Your task to perform on an android device: Empty the shopping cart on target. Search for apple airpods on target, select the first entry, add it to the cart, then select checkout. Image 0: 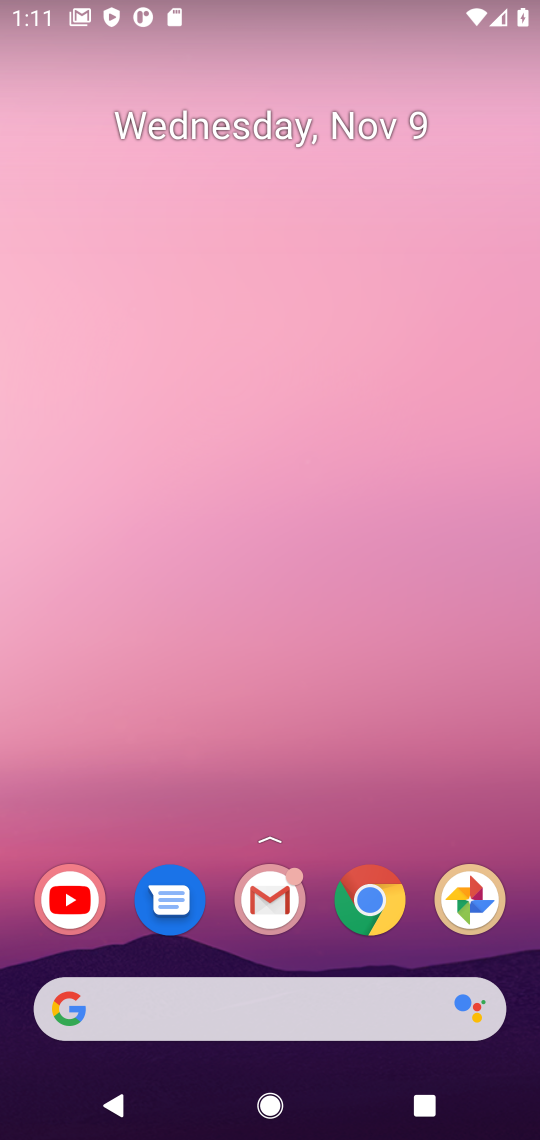
Step 0: click (353, 920)
Your task to perform on an android device: Empty the shopping cart on target. Search for apple airpods on target, select the first entry, add it to the cart, then select checkout. Image 1: 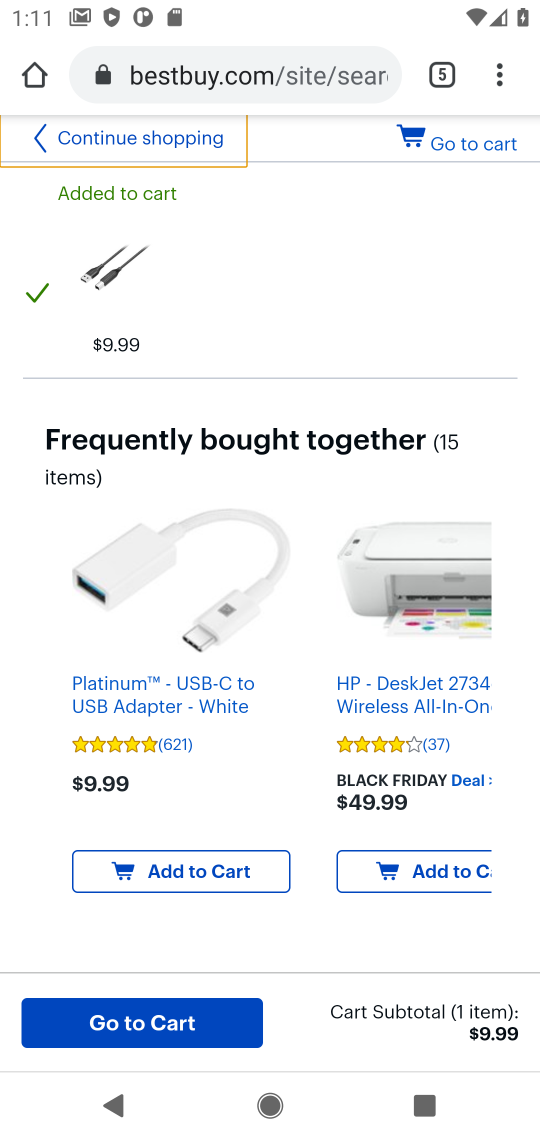
Step 1: click (444, 57)
Your task to perform on an android device: Empty the shopping cart on target. Search for apple airpods on target, select the first entry, add it to the cart, then select checkout. Image 2: 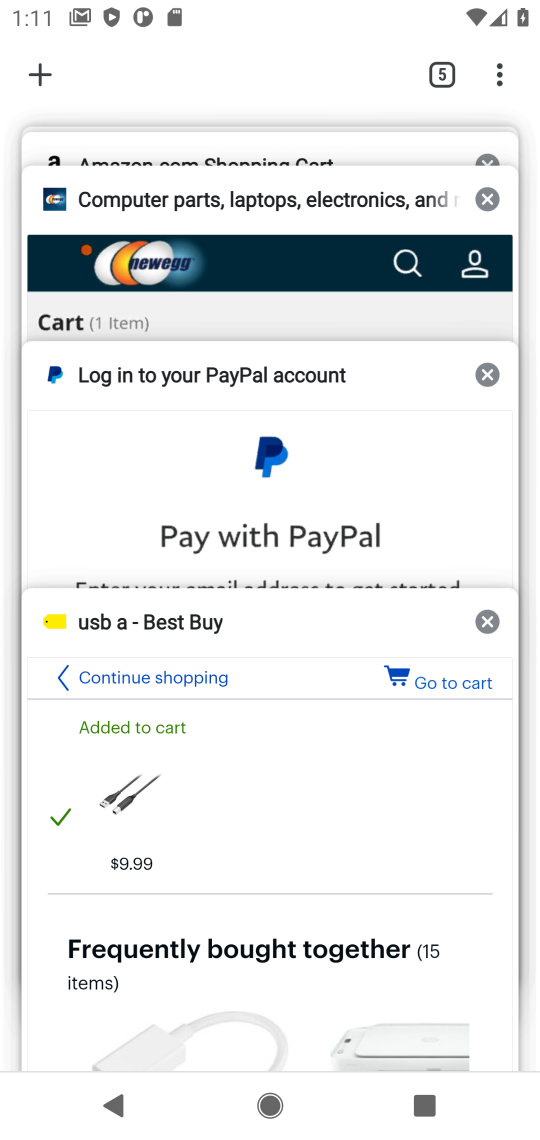
Step 2: click (44, 88)
Your task to perform on an android device: Empty the shopping cart on target. Search for apple airpods on target, select the first entry, add it to the cart, then select checkout. Image 3: 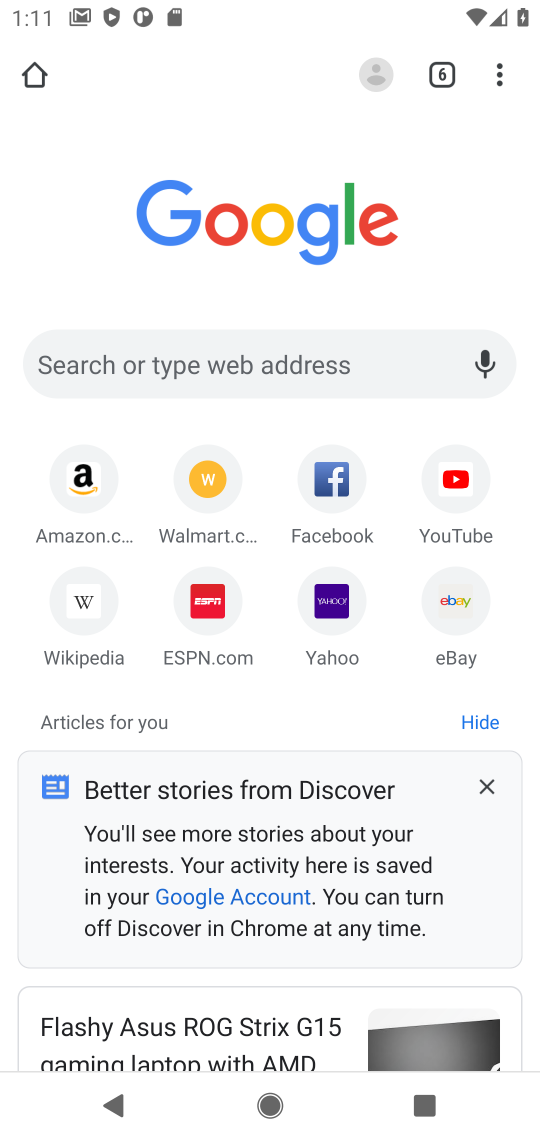
Step 3: click (271, 374)
Your task to perform on an android device: Empty the shopping cart on target. Search for apple airpods on target, select the first entry, add it to the cart, then select checkout. Image 4: 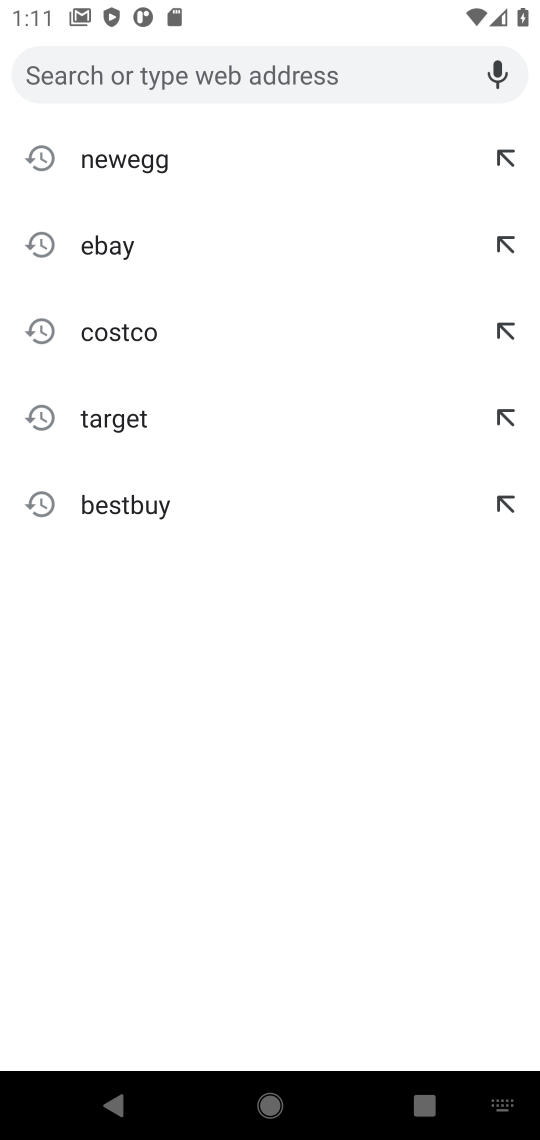
Step 4: click (118, 410)
Your task to perform on an android device: Empty the shopping cart on target. Search for apple airpods on target, select the first entry, add it to the cart, then select checkout. Image 5: 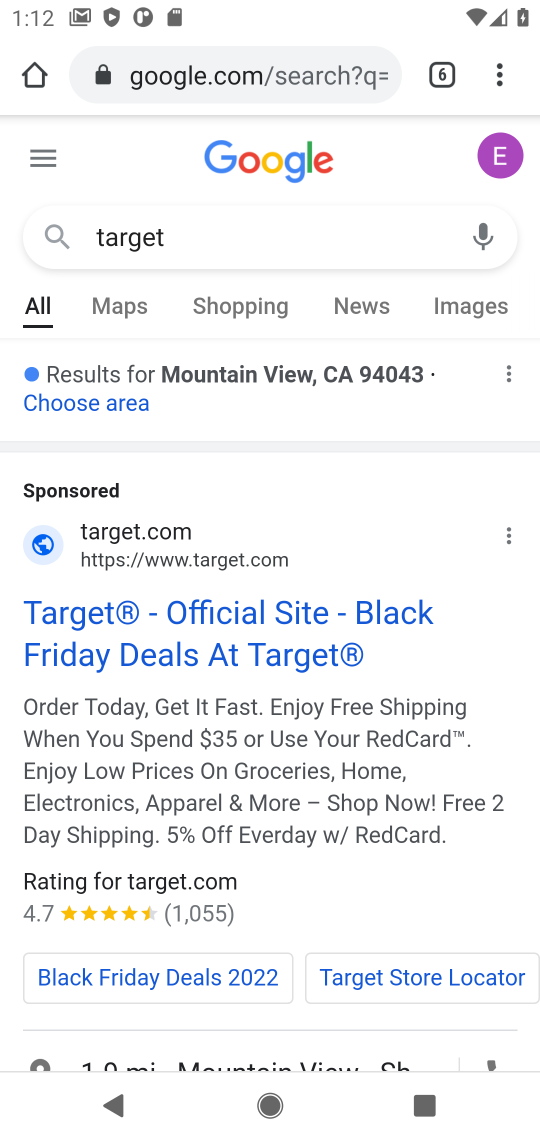
Step 5: click (254, 618)
Your task to perform on an android device: Empty the shopping cart on target. Search for apple airpods on target, select the first entry, add it to the cart, then select checkout. Image 6: 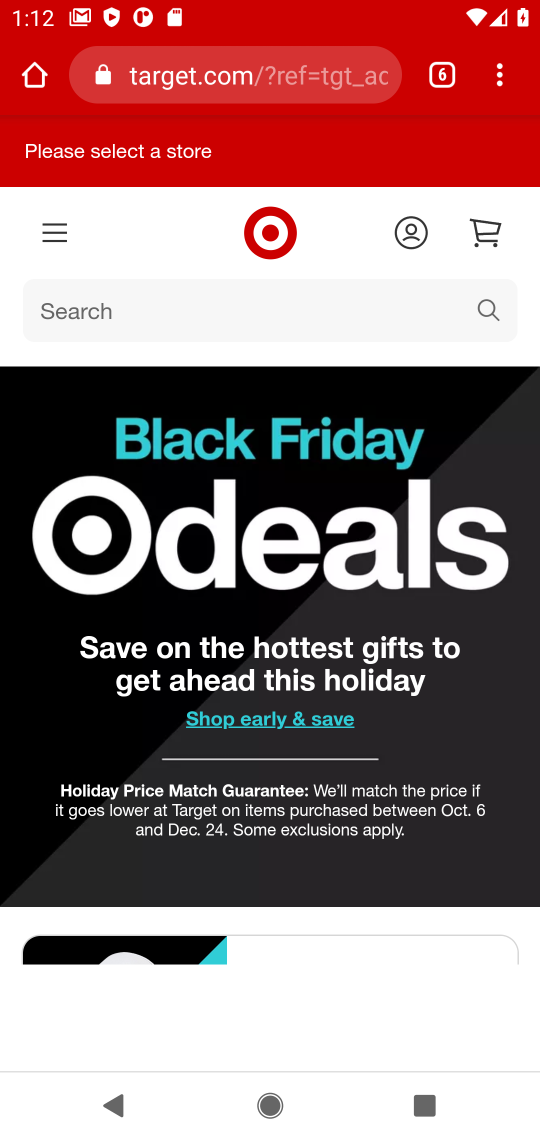
Step 6: click (123, 321)
Your task to perform on an android device: Empty the shopping cart on target. Search for apple airpods on target, select the first entry, add it to the cart, then select checkout. Image 7: 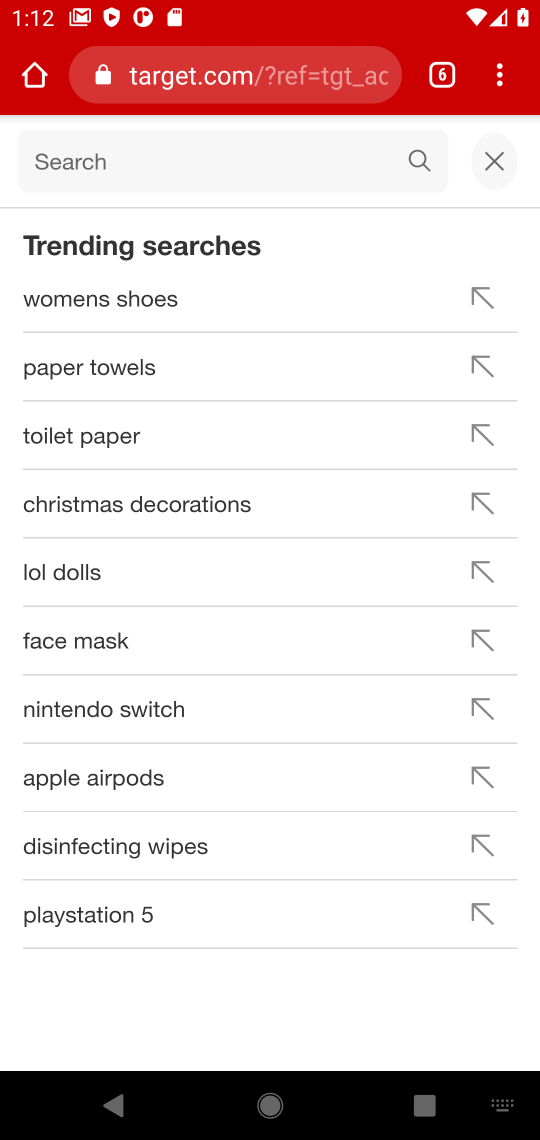
Step 7: type "apple airpods"
Your task to perform on an android device: Empty the shopping cart on target. Search for apple airpods on target, select the first entry, add it to the cart, then select checkout. Image 8: 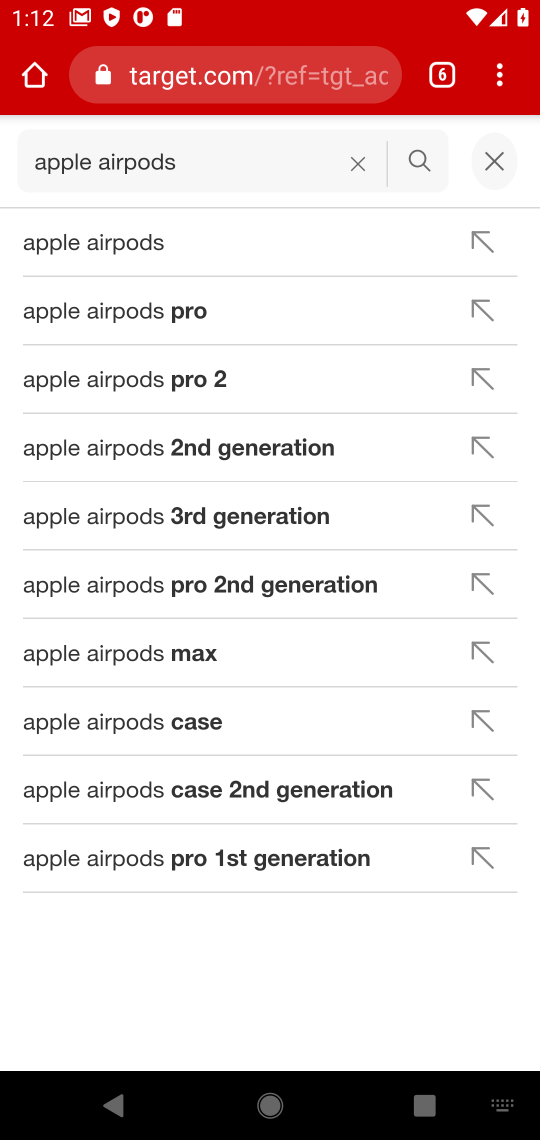
Step 8: click (128, 235)
Your task to perform on an android device: Empty the shopping cart on target. Search for apple airpods on target, select the first entry, add it to the cart, then select checkout. Image 9: 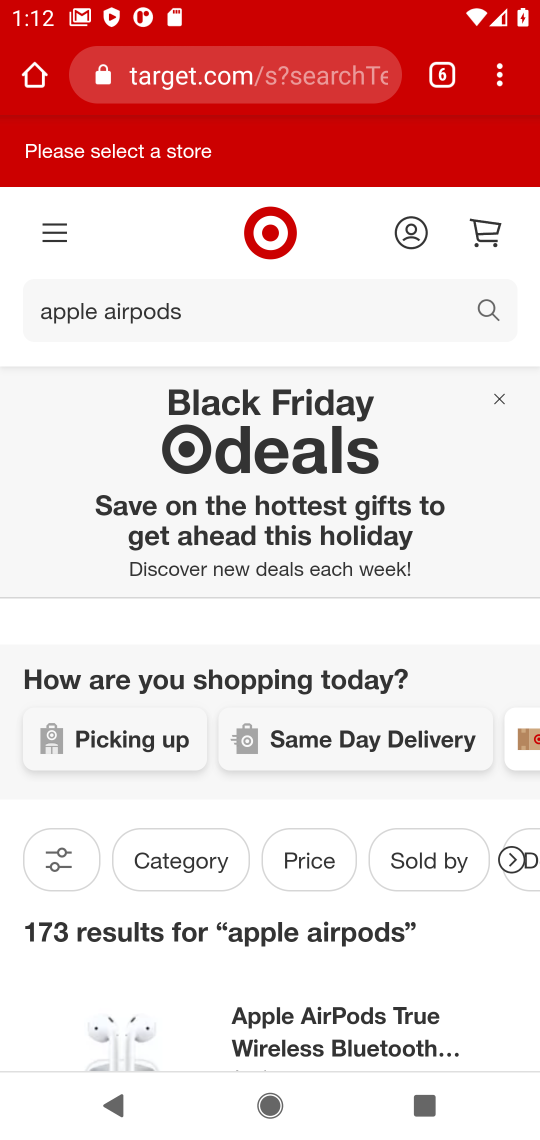
Step 9: click (272, 1038)
Your task to perform on an android device: Empty the shopping cart on target. Search for apple airpods on target, select the first entry, add it to the cart, then select checkout. Image 10: 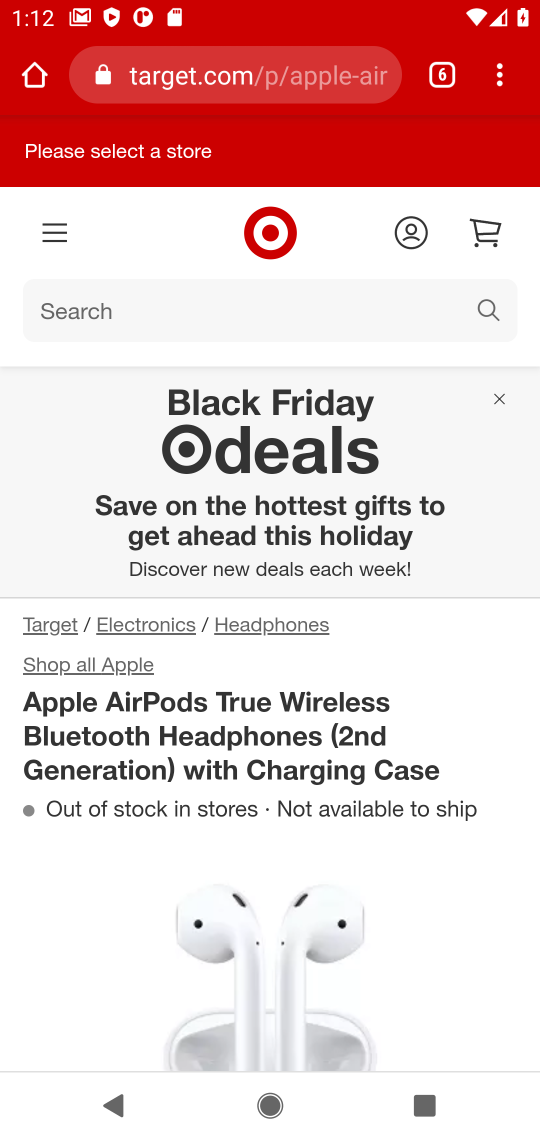
Step 10: drag from (272, 1038) to (201, 537)
Your task to perform on an android device: Empty the shopping cart on target. Search for apple airpods on target, select the first entry, add it to the cart, then select checkout. Image 11: 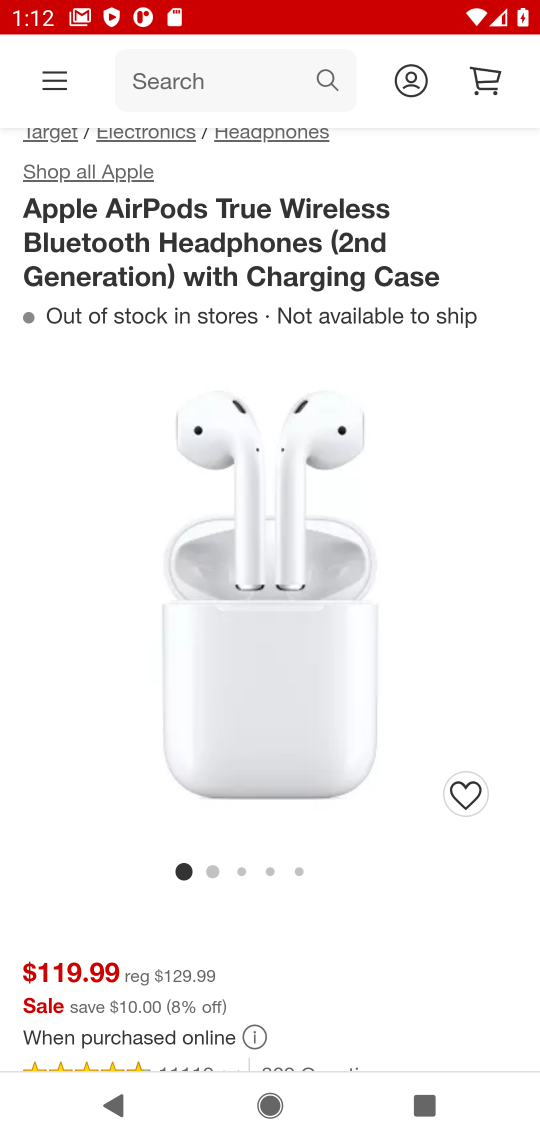
Step 11: drag from (208, 579) to (55, 278)
Your task to perform on an android device: Empty the shopping cart on target. Search for apple airpods on target, select the first entry, add it to the cart, then select checkout. Image 12: 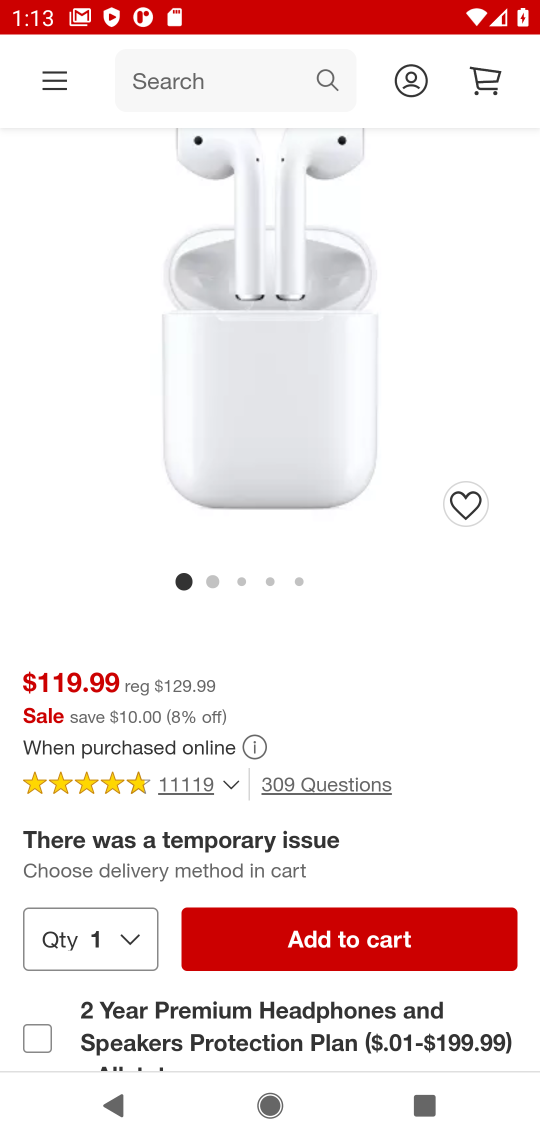
Step 12: click (282, 949)
Your task to perform on an android device: Empty the shopping cart on target. Search for apple airpods on target, select the first entry, add it to the cart, then select checkout. Image 13: 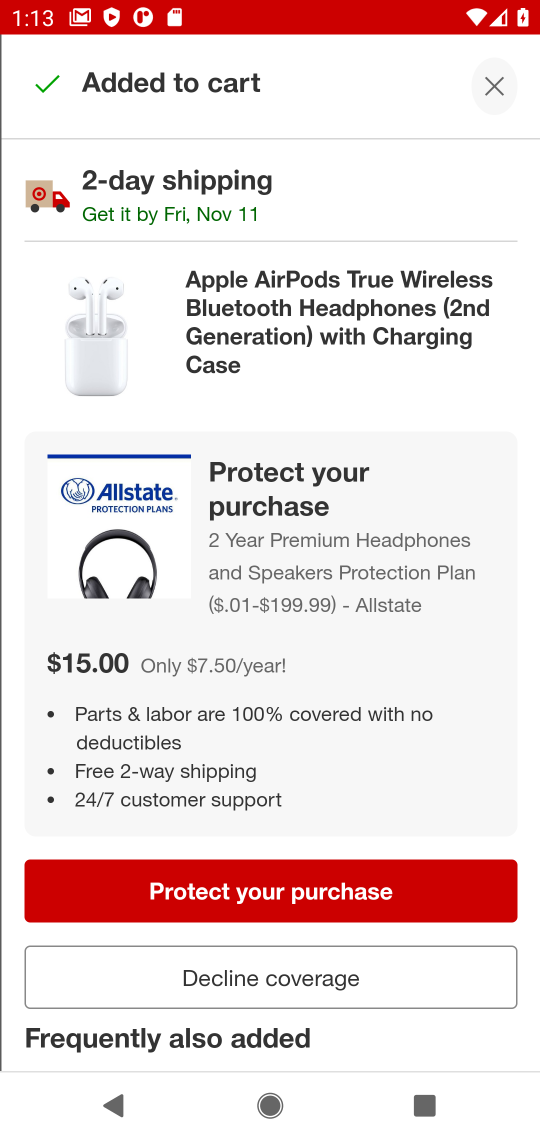
Step 13: task complete